Your task to perform on an android device: Go to ESPN.com Image 0: 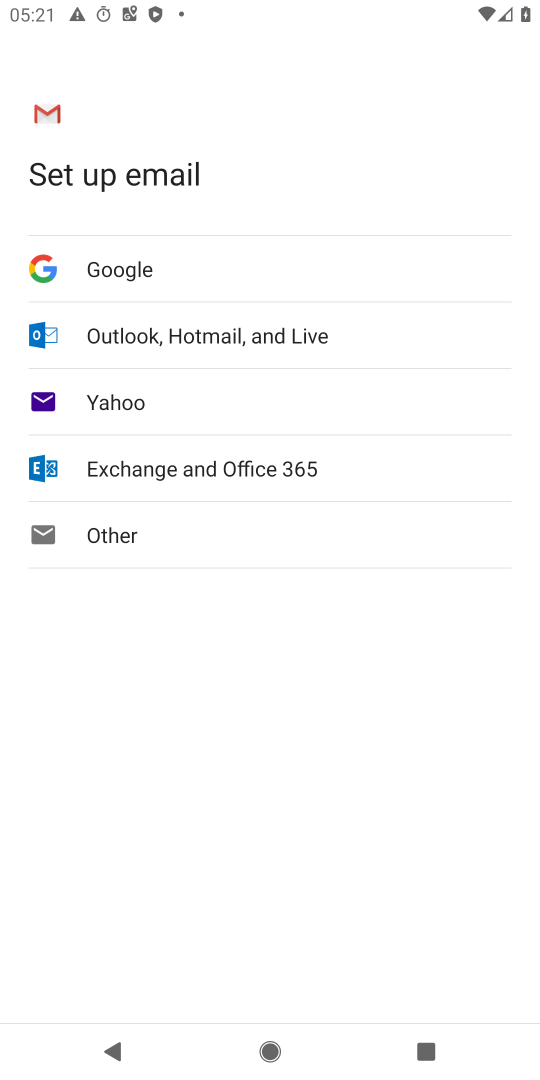
Step 0: press home button
Your task to perform on an android device: Go to ESPN.com Image 1: 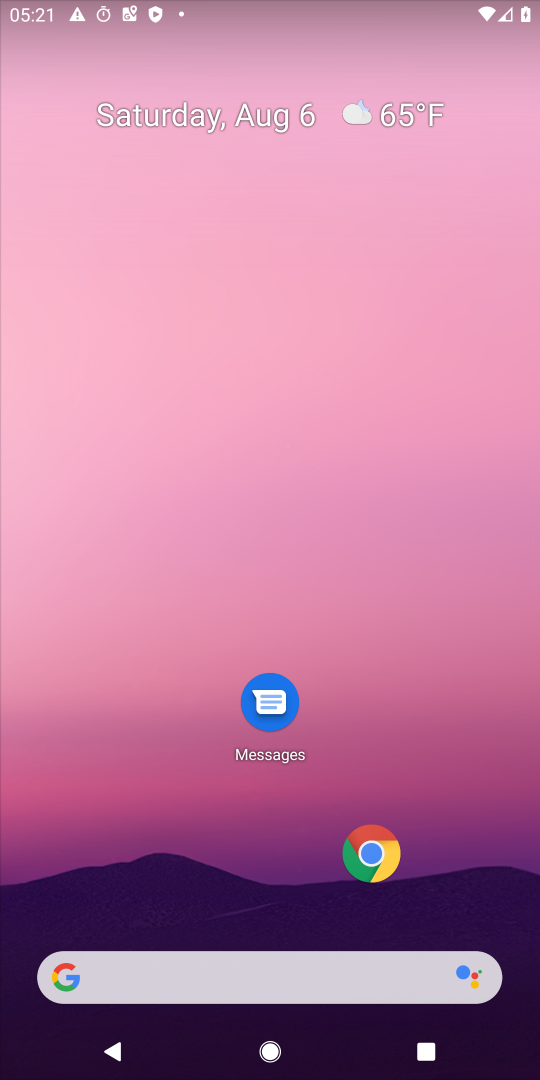
Step 1: drag from (445, 794) to (539, 218)
Your task to perform on an android device: Go to ESPN.com Image 2: 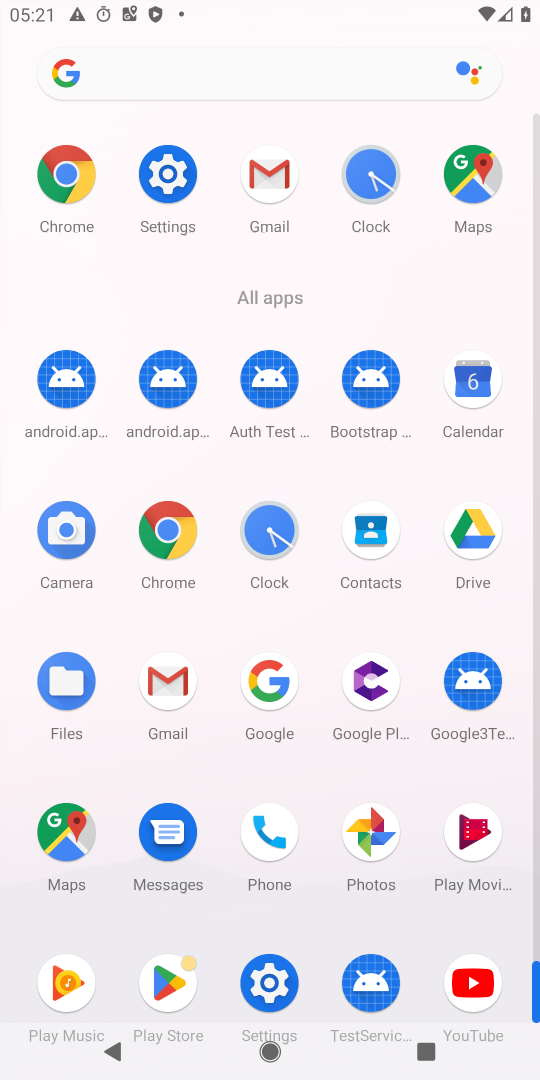
Step 2: click (170, 524)
Your task to perform on an android device: Go to ESPN.com Image 3: 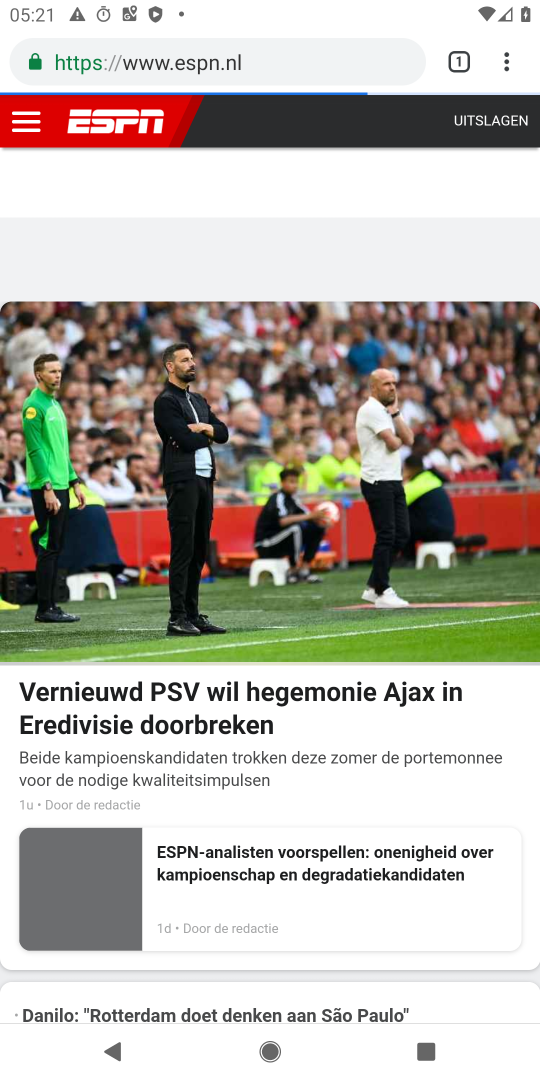
Step 3: task complete